Your task to perform on an android device: turn notification dots on Image 0: 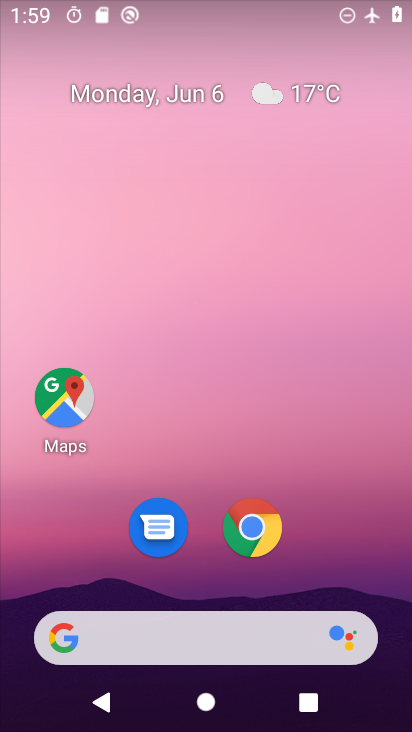
Step 0: drag from (229, 719) to (212, 126)
Your task to perform on an android device: turn notification dots on Image 1: 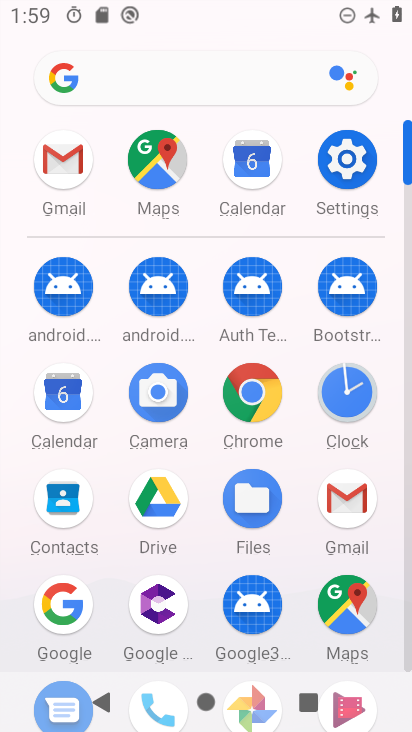
Step 1: click (347, 160)
Your task to perform on an android device: turn notification dots on Image 2: 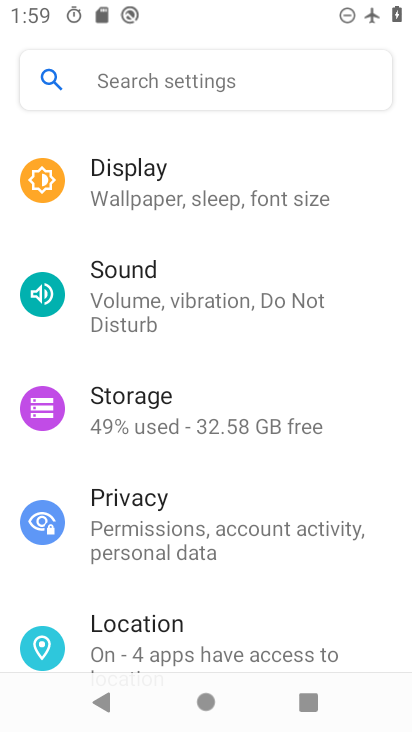
Step 2: drag from (150, 611) to (158, 308)
Your task to perform on an android device: turn notification dots on Image 3: 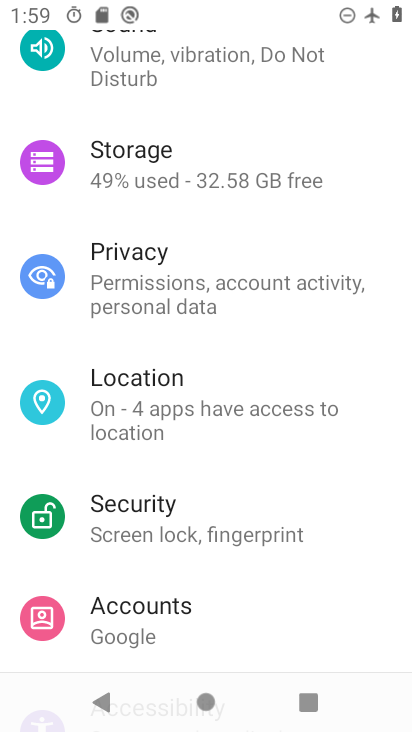
Step 3: drag from (224, 190) to (207, 521)
Your task to perform on an android device: turn notification dots on Image 4: 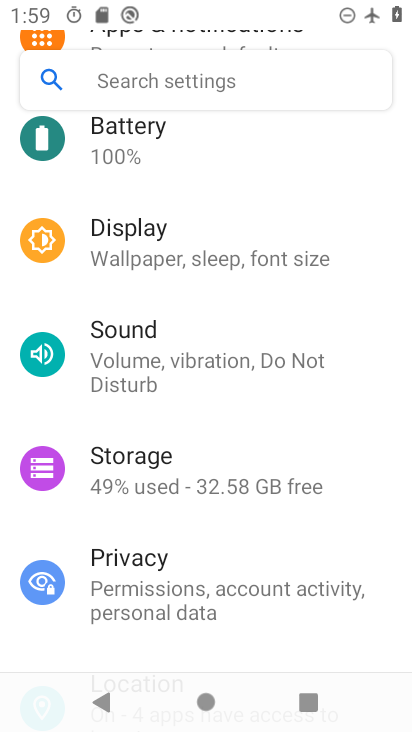
Step 4: drag from (212, 167) to (210, 531)
Your task to perform on an android device: turn notification dots on Image 5: 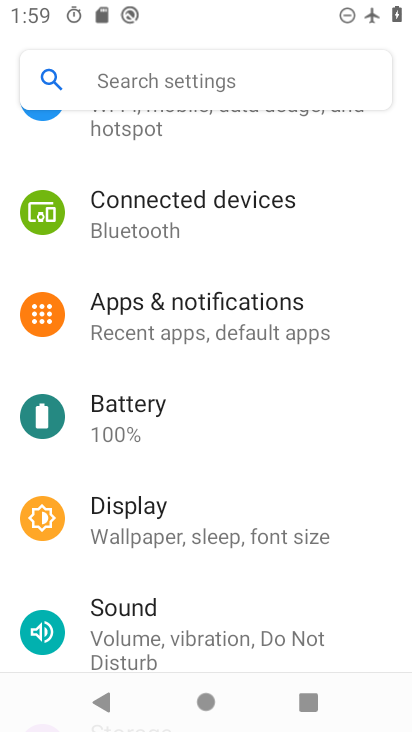
Step 5: click (189, 320)
Your task to perform on an android device: turn notification dots on Image 6: 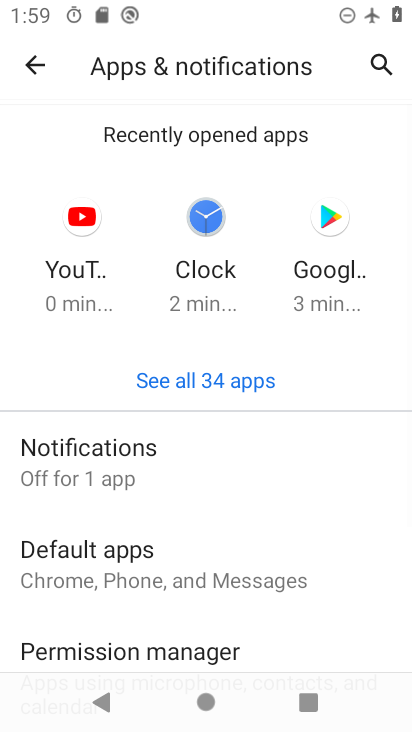
Step 6: drag from (107, 640) to (112, 461)
Your task to perform on an android device: turn notification dots on Image 7: 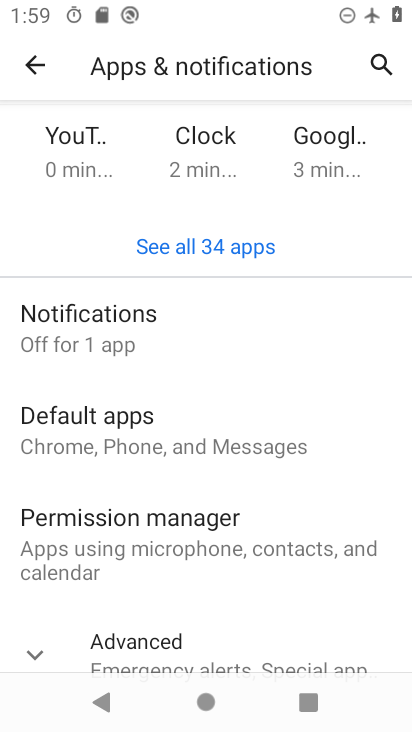
Step 7: click (79, 319)
Your task to perform on an android device: turn notification dots on Image 8: 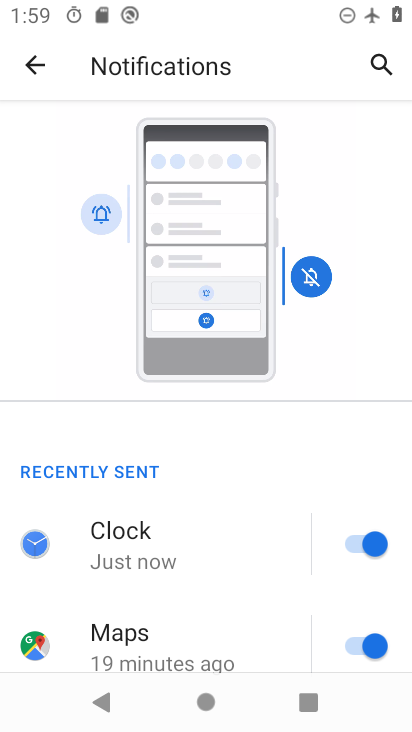
Step 8: drag from (203, 661) to (193, 320)
Your task to perform on an android device: turn notification dots on Image 9: 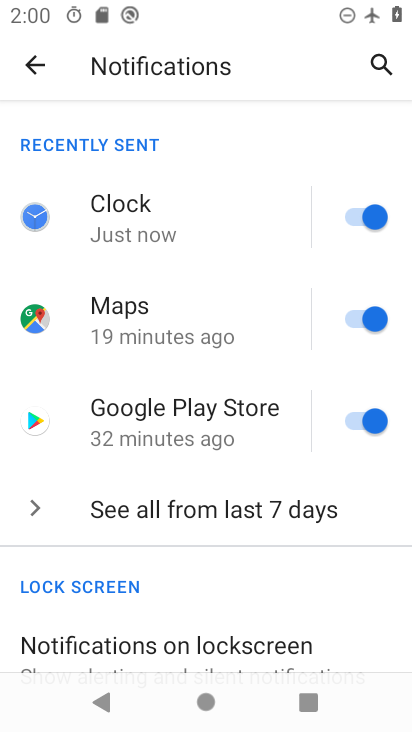
Step 9: drag from (249, 646) to (254, 250)
Your task to perform on an android device: turn notification dots on Image 10: 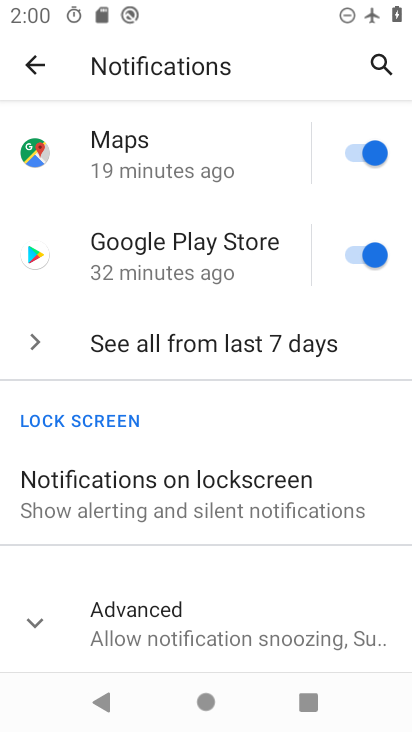
Step 10: click (173, 624)
Your task to perform on an android device: turn notification dots on Image 11: 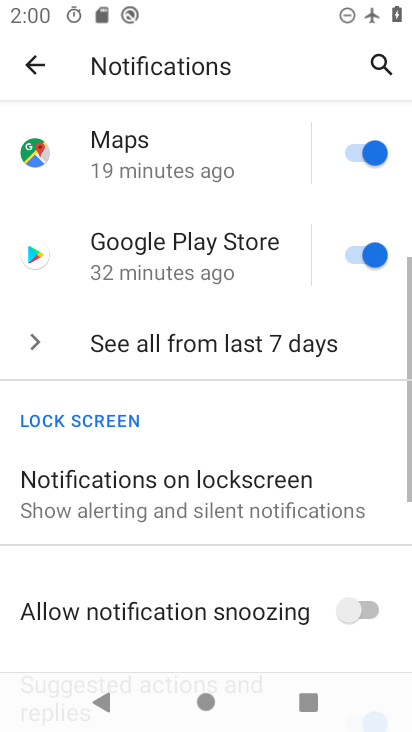
Step 11: task complete